Your task to perform on an android device: Open maps Image 0: 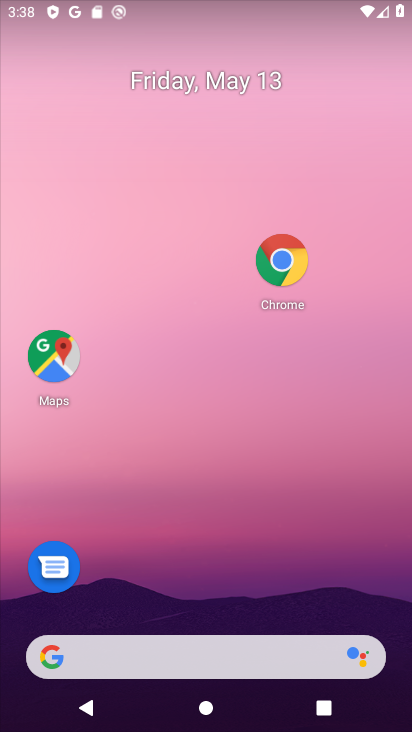
Step 0: click (45, 6)
Your task to perform on an android device: Open maps Image 1: 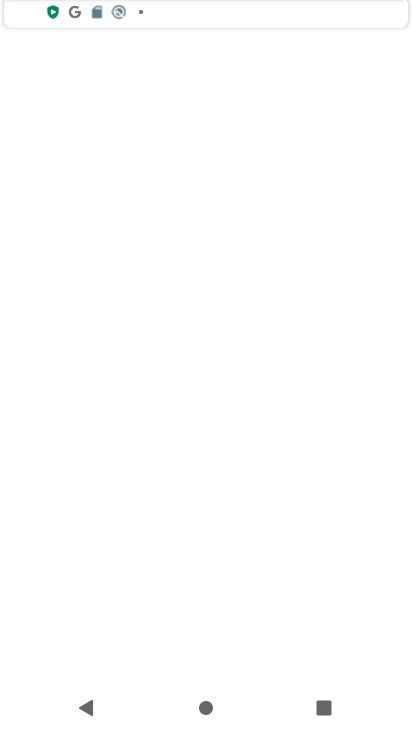
Step 1: drag from (318, 543) to (132, 43)
Your task to perform on an android device: Open maps Image 2: 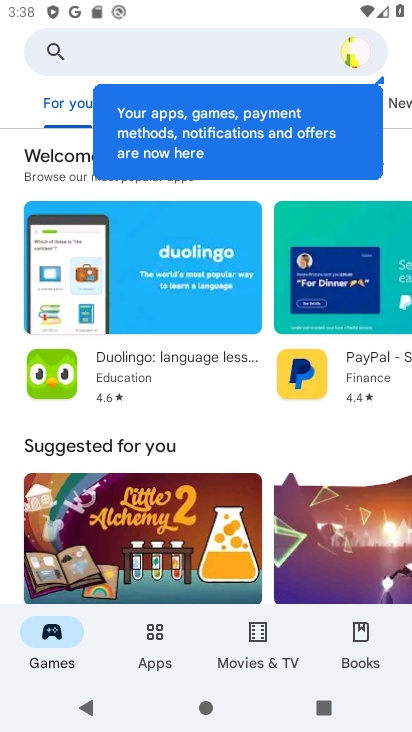
Step 2: press home button
Your task to perform on an android device: Open maps Image 3: 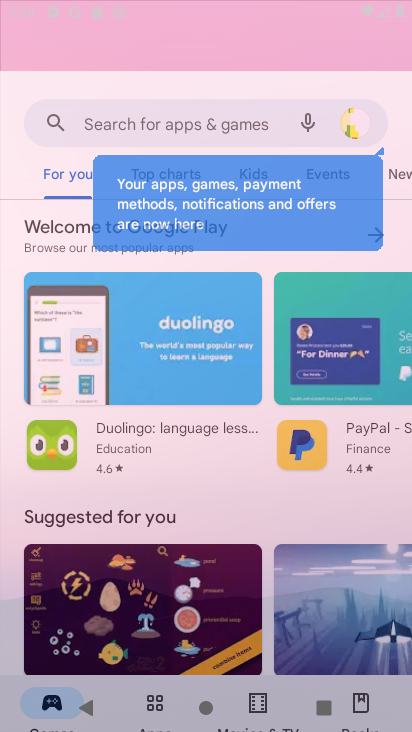
Step 3: press home button
Your task to perform on an android device: Open maps Image 4: 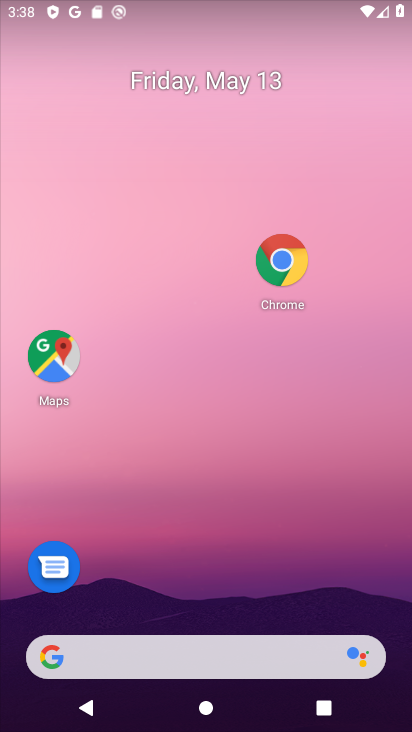
Step 4: drag from (297, 556) to (165, 65)
Your task to perform on an android device: Open maps Image 5: 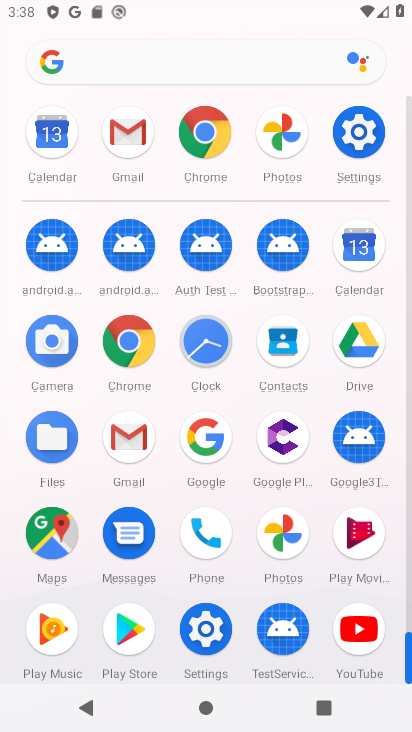
Step 5: click (59, 529)
Your task to perform on an android device: Open maps Image 6: 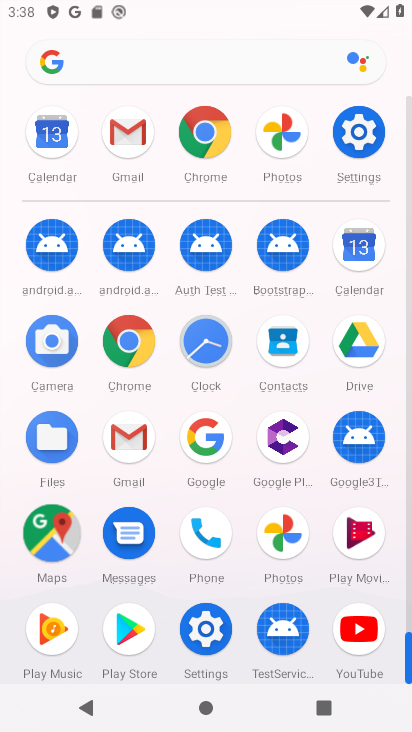
Step 6: click (53, 533)
Your task to perform on an android device: Open maps Image 7: 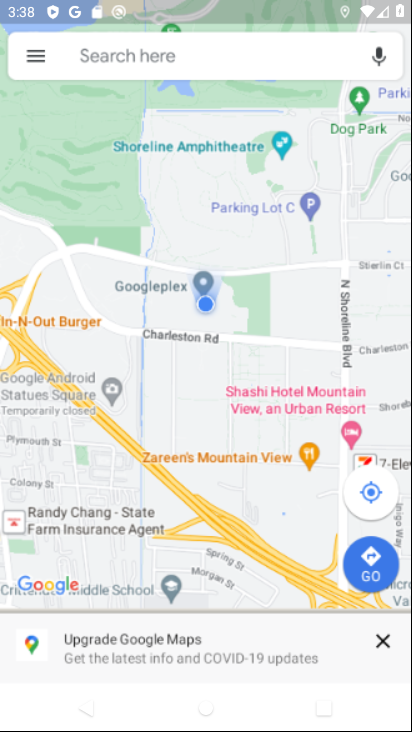
Step 7: click (54, 523)
Your task to perform on an android device: Open maps Image 8: 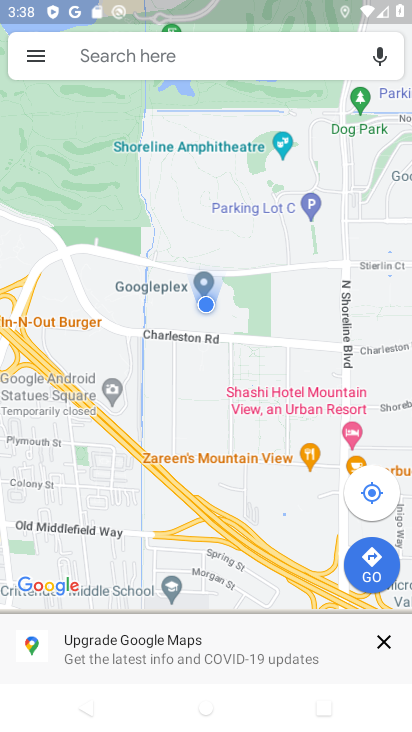
Step 8: task complete